Your task to perform on an android device: Search for Italian restaurants on Maps Image 0: 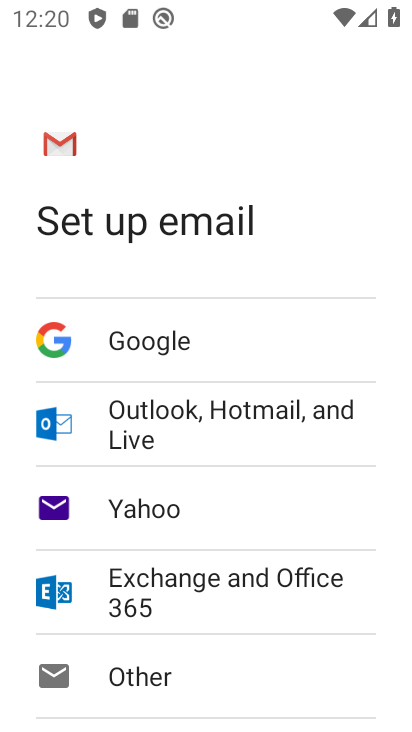
Step 0: press home button
Your task to perform on an android device: Search for Italian restaurants on Maps Image 1: 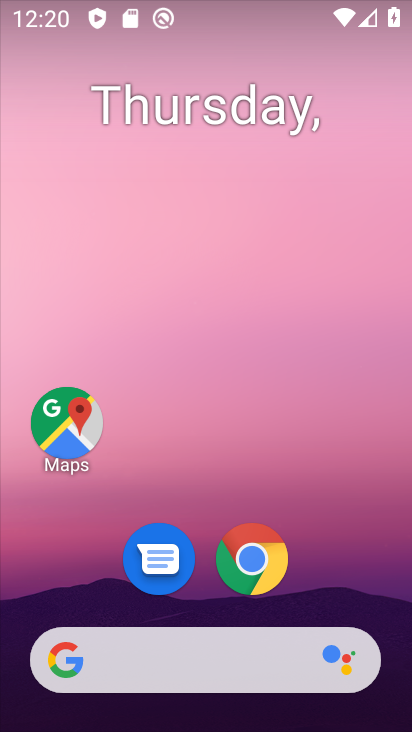
Step 1: click (75, 431)
Your task to perform on an android device: Search for Italian restaurants on Maps Image 2: 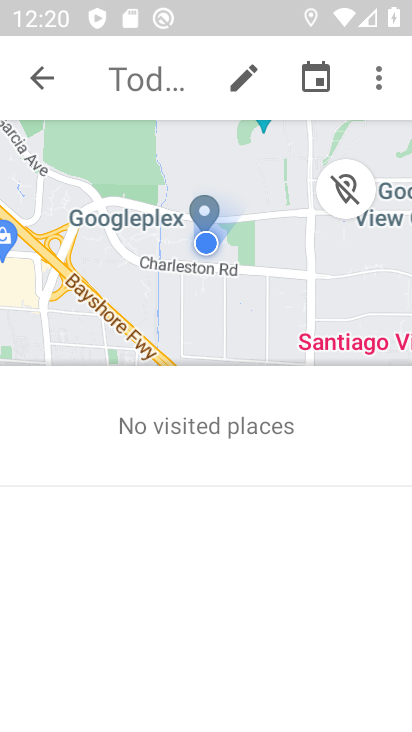
Step 2: click (38, 64)
Your task to perform on an android device: Search for Italian restaurants on Maps Image 3: 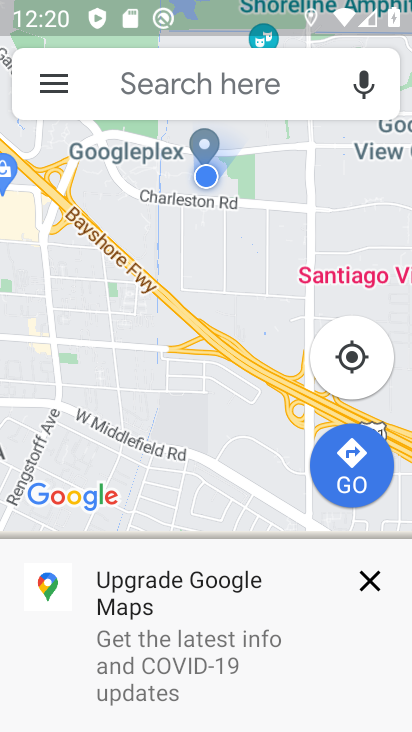
Step 3: click (205, 99)
Your task to perform on an android device: Search for Italian restaurants on Maps Image 4: 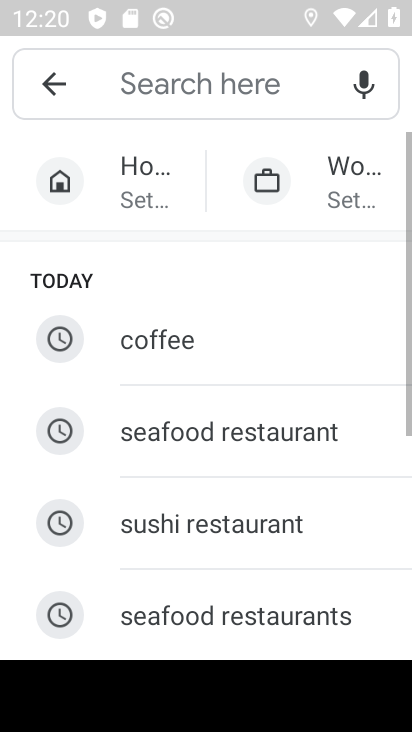
Step 4: drag from (297, 618) to (297, 295)
Your task to perform on an android device: Search for Italian restaurants on Maps Image 5: 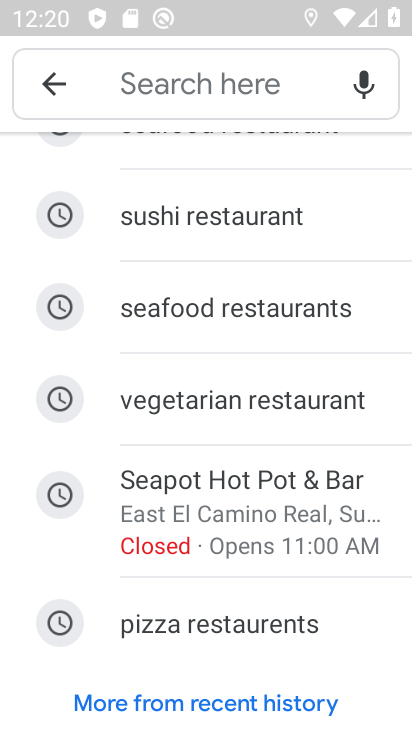
Step 5: click (223, 56)
Your task to perform on an android device: Search for Italian restaurants on Maps Image 6: 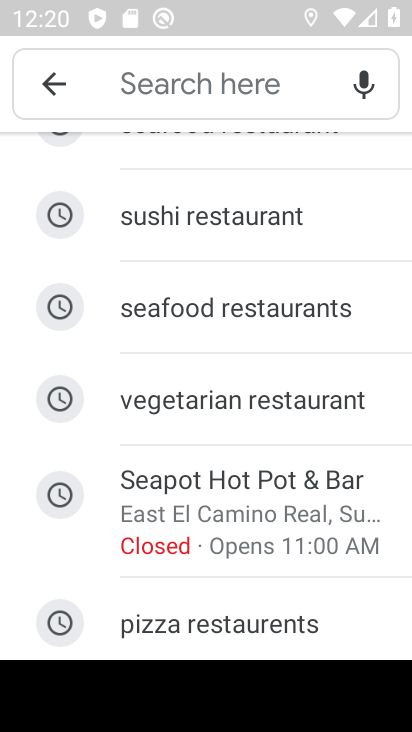
Step 6: type "italian"
Your task to perform on an android device: Search for Italian restaurants on Maps Image 7: 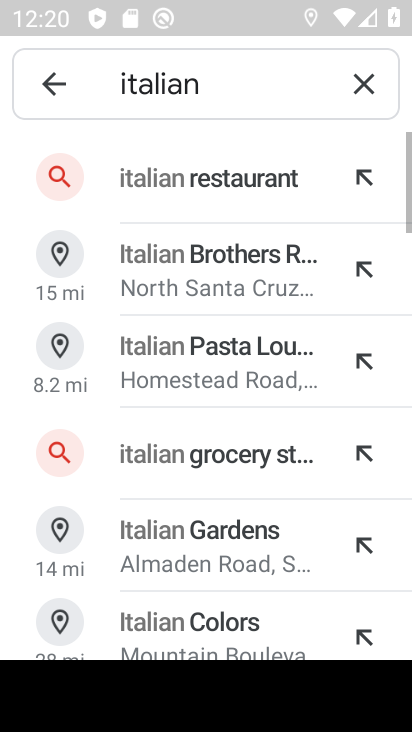
Step 7: click (198, 176)
Your task to perform on an android device: Search for Italian restaurants on Maps Image 8: 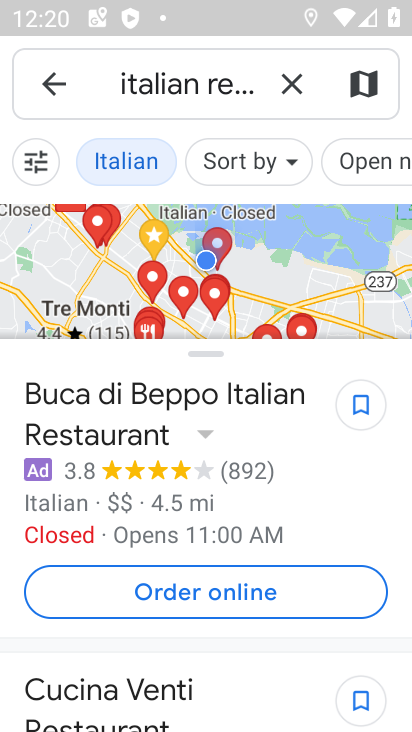
Step 8: task complete